Your task to perform on an android device: Open Google Chrome and click the shortcut for Amazon.com Image 0: 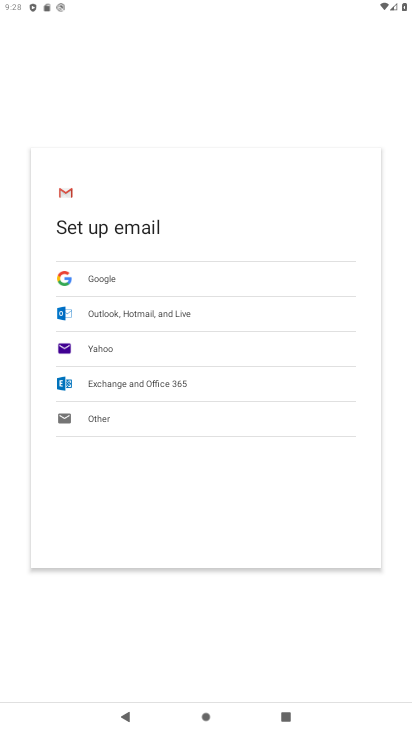
Step 0: press home button
Your task to perform on an android device: Open Google Chrome and click the shortcut for Amazon.com Image 1: 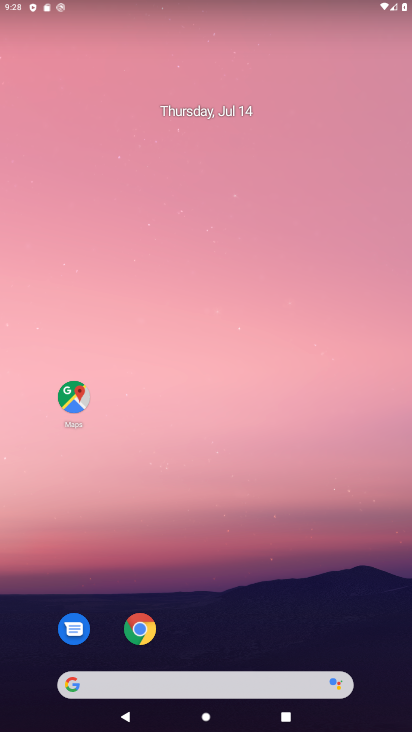
Step 1: click (142, 626)
Your task to perform on an android device: Open Google Chrome and click the shortcut for Amazon.com Image 2: 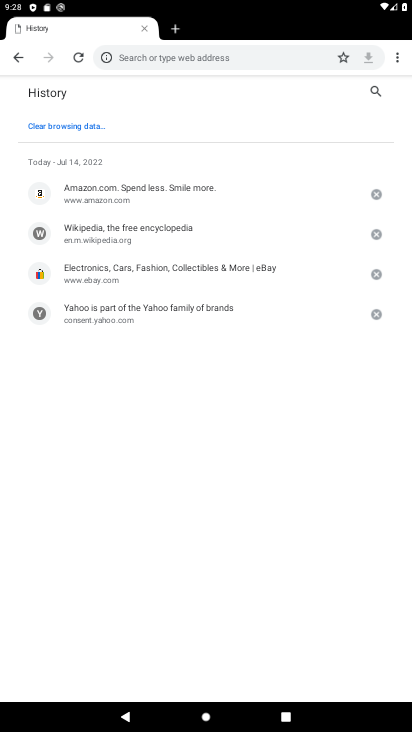
Step 2: press back button
Your task to perform on an android device: Open Google Chrome and click the shortcut for Amazon.com Image 3: 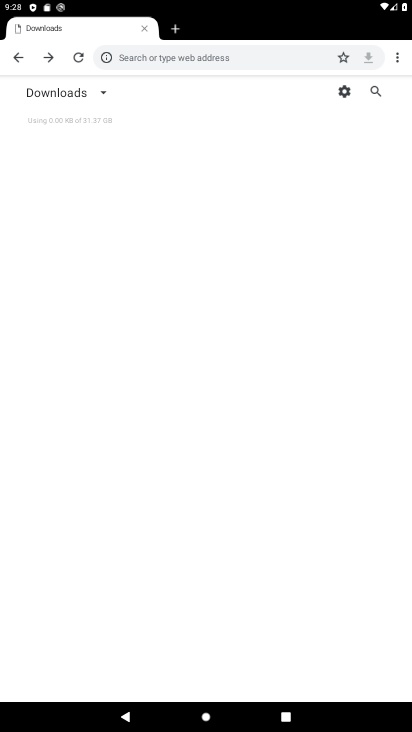
Step 3: click (173, 30)
Your task to perform on an android device: Open Google Chrome and click the shortcut for Amazon.com Image 4: 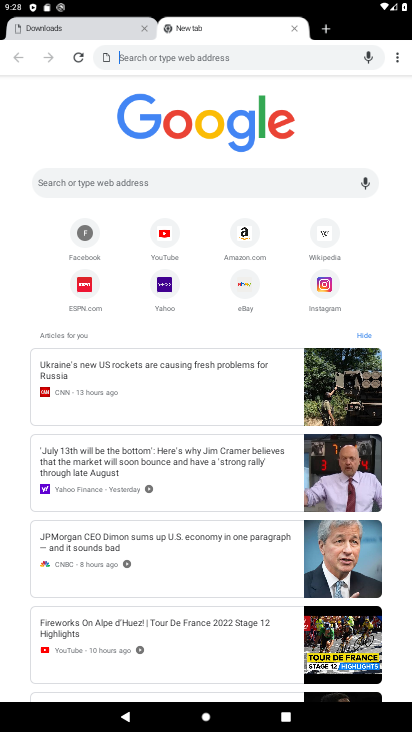
Step 4: click (242, 234)
Your task to perform on an android device: Open Google Chrome and click the shortcut for Amazon.com Image 5: 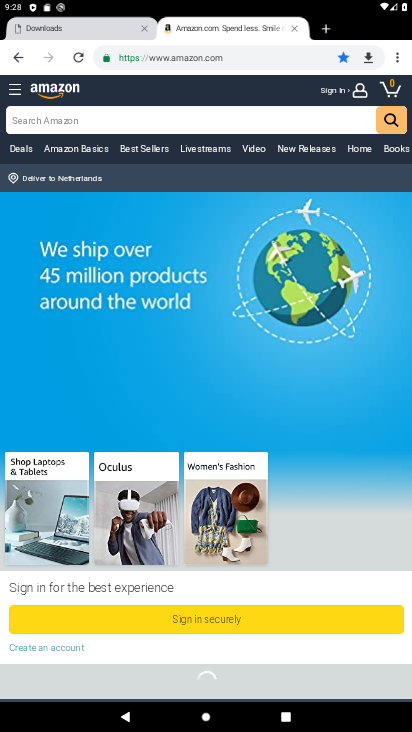
Step 5: task complete